Your task to perform on an android device: turn pop-ups on in chrome Image 0: 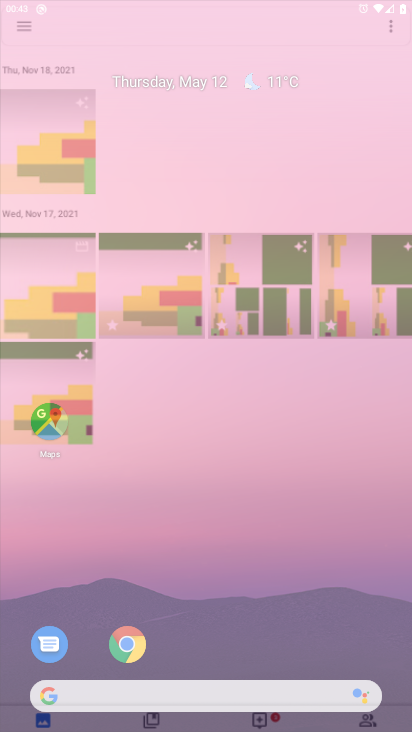
Step 0: click (206, 324)
Your task to perform on an android device: turn pop-ups on in chrome Image 1: 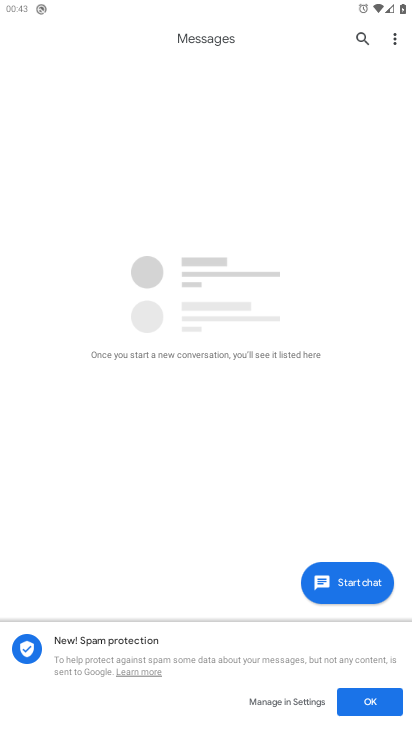
Step 1: press home button
Your task to perform on an android device: turn pop-ups on in chrome Image 2: 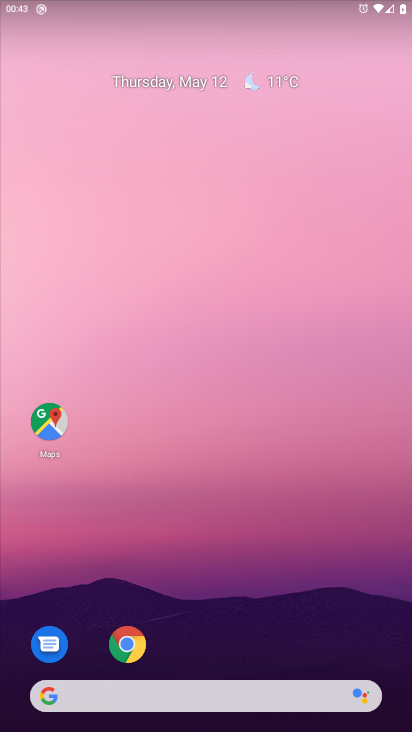
Step 2: click (124, 639)
Your task to perform on an android device: turn pop-ups on in chrome Image 3: 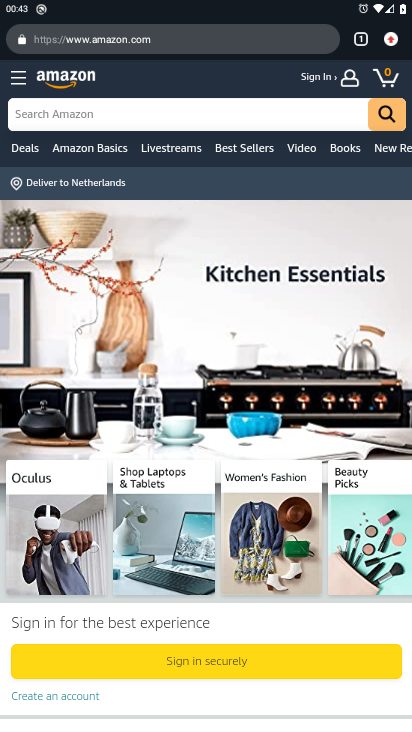
Step 3: click (390, 37)
Your task to perform on an android device: turn pop-ups on in chrome Image 4: 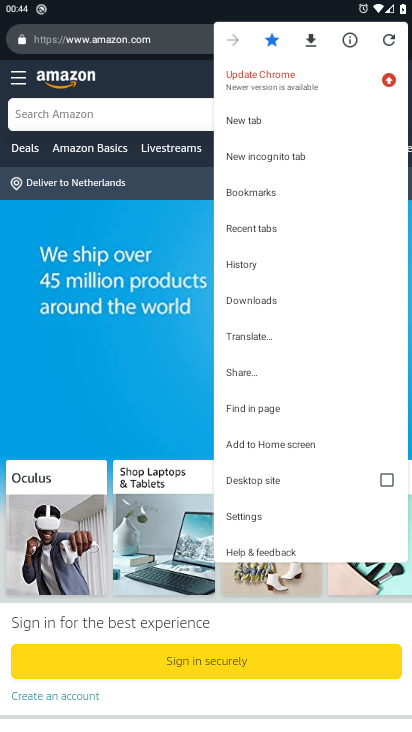
Step 4: click (264, 511)
Your task to perform on an android device: turn pop-ups on in chrome Image 5: 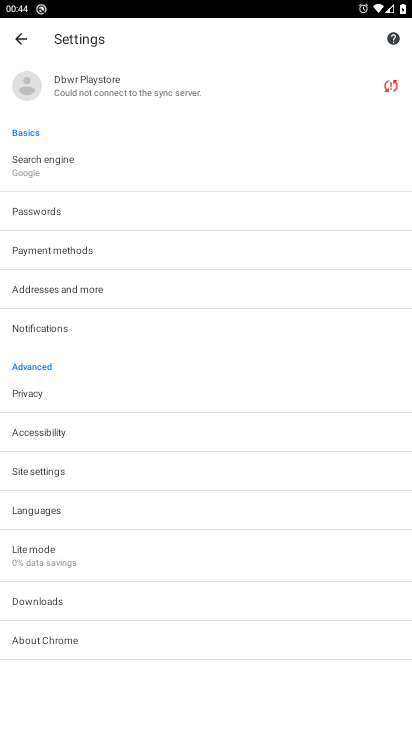
Step 5: click (71, 463)
Your task to perform on an android device: turn pop-ups on in chrome Image 6: 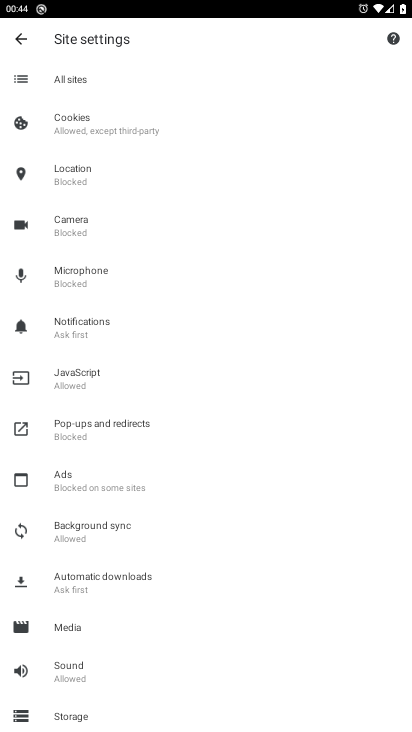
Step 6: click (100, 421)
Your task to perform on an android device: turn pop-ups on in chrome Image 7: 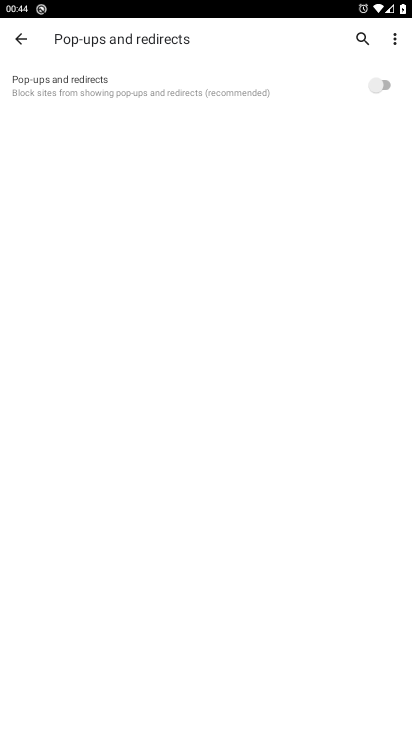
Step 7: click (380, 79)
Your task to perform on an android device: turn pop-ups on in chrome Image 8: 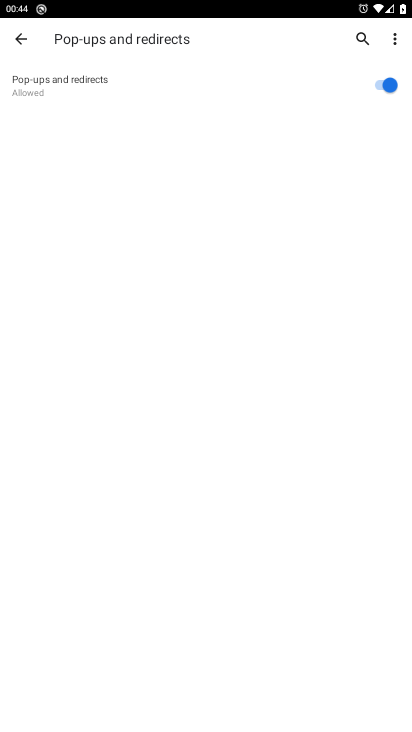
Step 8: task complete